Your task to perform on an android device: What is the recent news? Image 0: 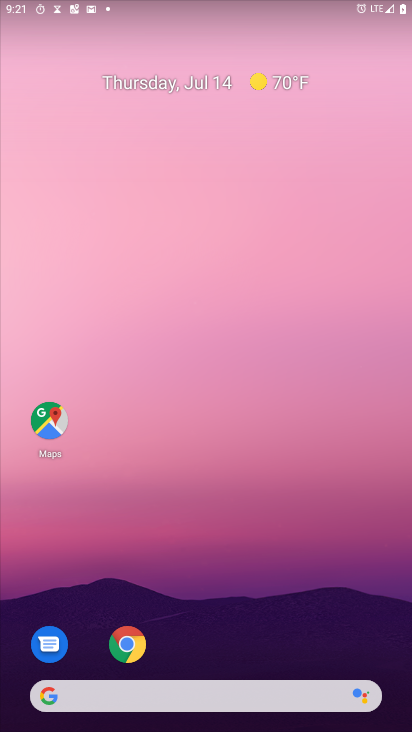
Step 0: click (126, 687)
Your task to perform on an android device: What is the recent news? Image 1: 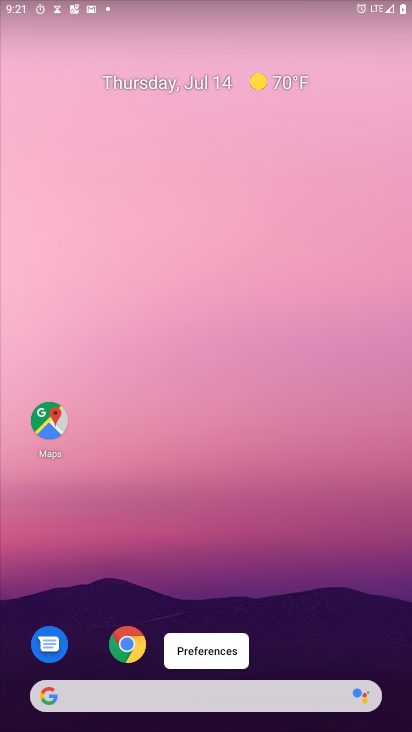
Step 1: click (149, 695)
Your task to perform on an android device: What is the recent news? Image 2: 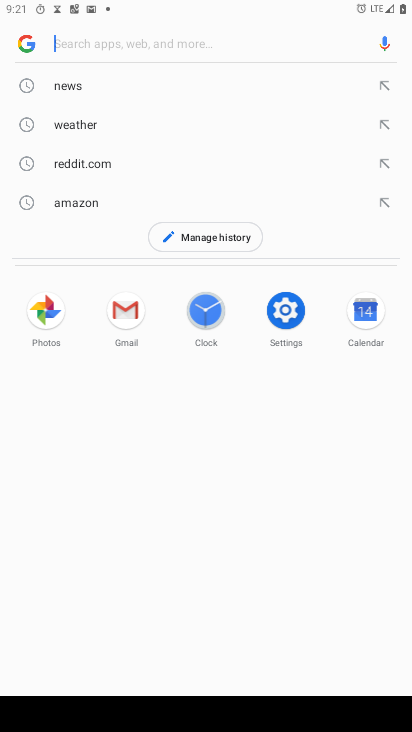
Step 2: click (75, 86)
Your task to perform on an android device: What is the recent news? Image 3: 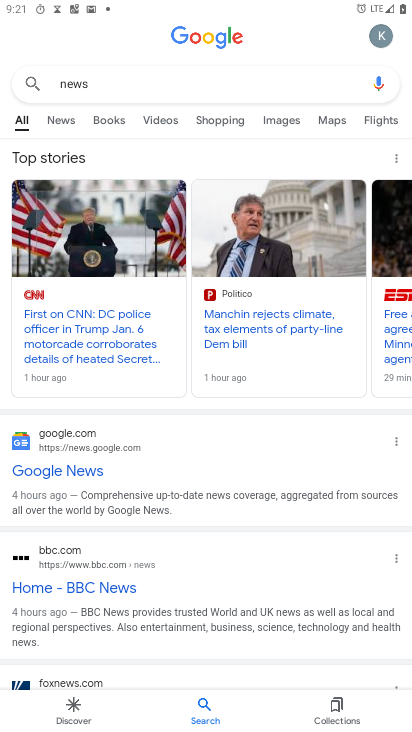
Step 3: click (68, 121)
Your task to perform on an android device: What is the recent news? Image 4: 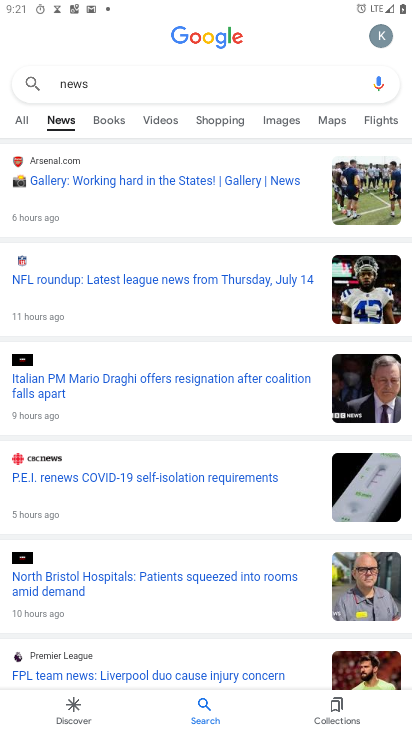
Step 4: task complete